Your task to perform on an android device: set an alarm Image 0: 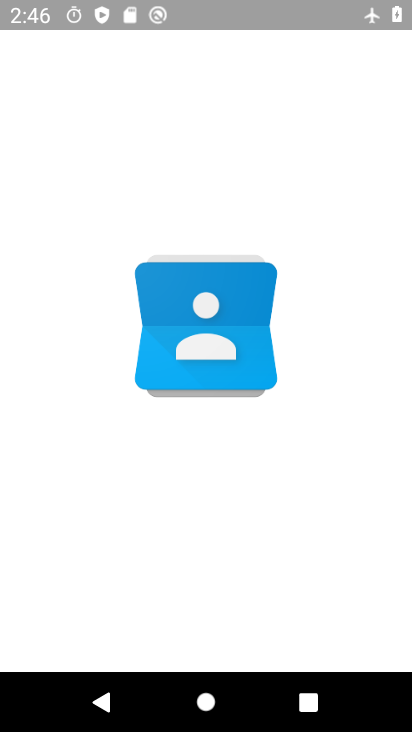
Step 0: drag from (332, 546) to (332, 156)
Your task to perform on an android device: set an alarm Image 1: 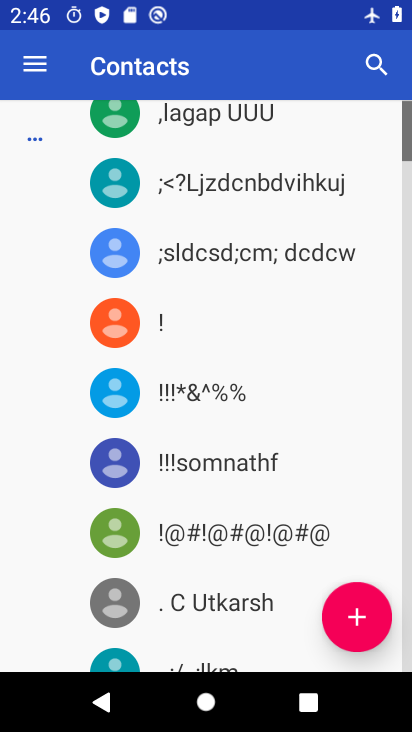
Step 1: press home button
Your task to perform on an android device: set an alarm Image 2: 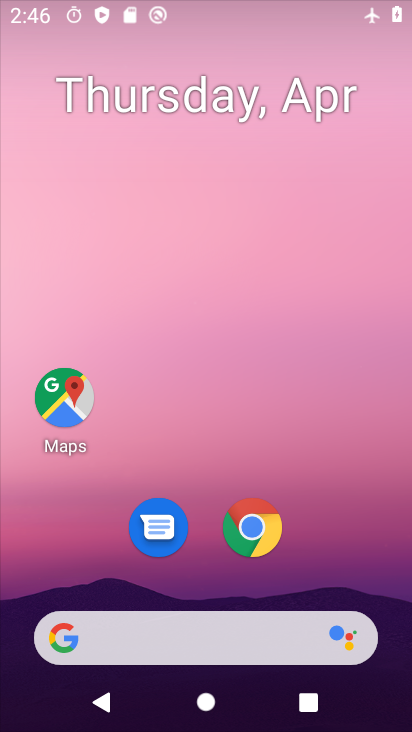
Step 2: drag from (286, 568) to (347, 182)
Your task to perform on an android device: set an alarm Image 3: 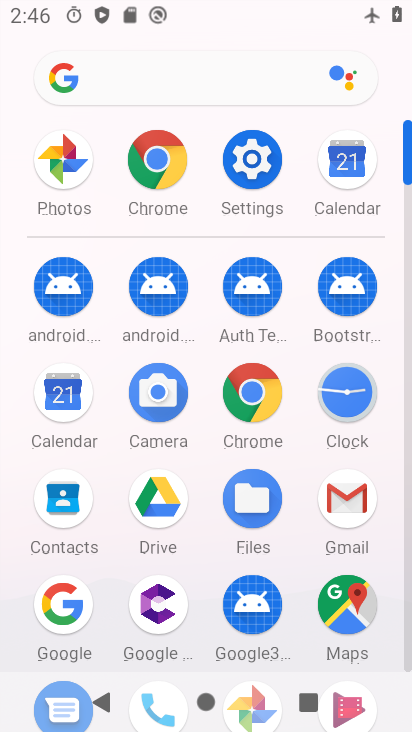
Step 3: click (346, 374)
Your task to perform on an android device: set an alarm Image 4: 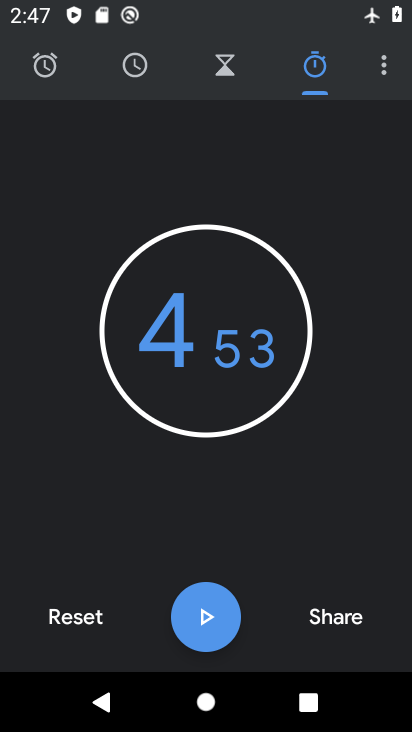
Step 4: click (40, 77)
Your task to perform on an android device: set an alarm Image 5: 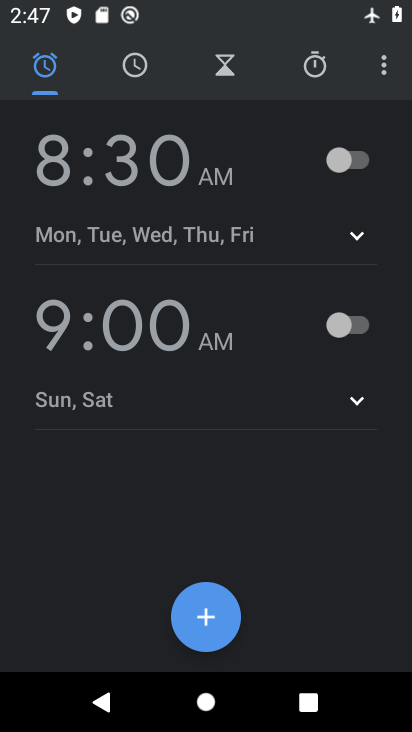
Step 5: click (213, 624)
Your task to perform on an android device: set an alarm Image 6: 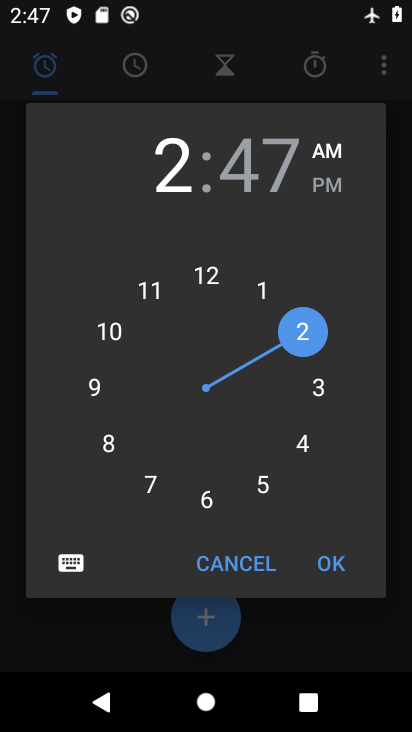
Step 6: click (342, 568)
Your task to perform on an android device: set an alarm Image 7: 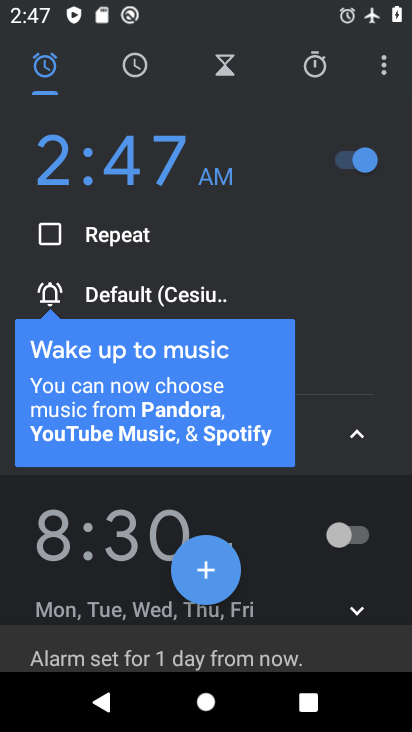
Step 7: task complete